Your task to perform on an android device: Open eBay Image 0: 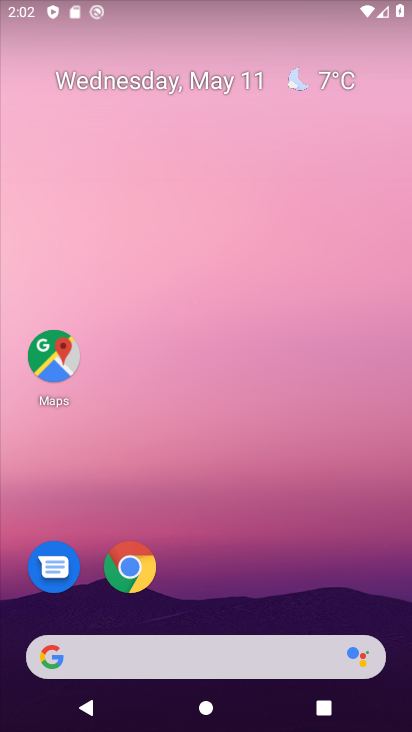
Step 0: click (145, 600)
Your task to perform on an android device: Open eBay Image 1: 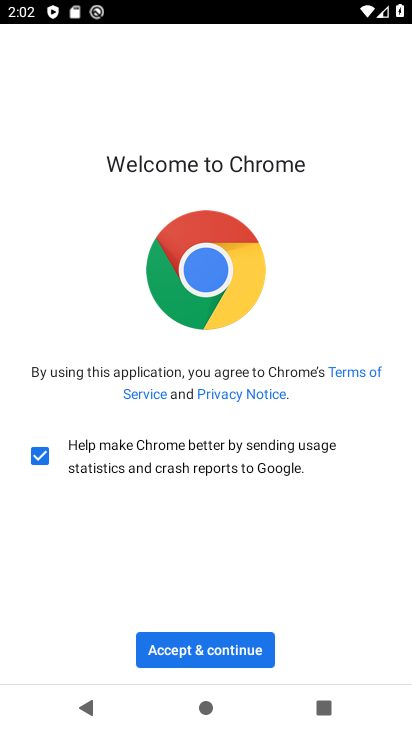
Step 1: click (171, 641)
Your task to perform on an android device: Open eBay Image 2: 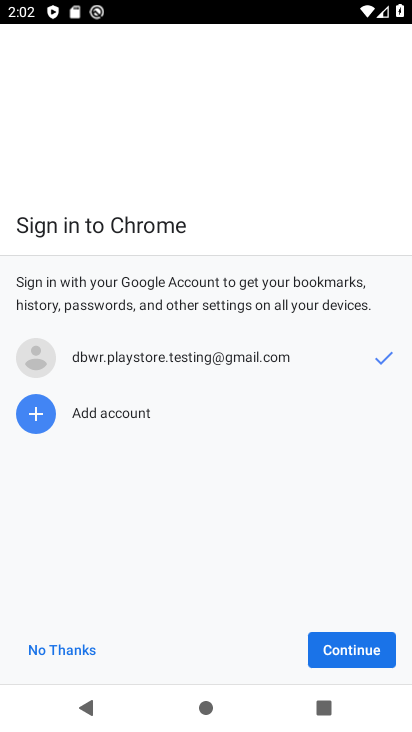
Step 2: click (372, 658)
Your task to perform on an android device: Open eBay Image 3: 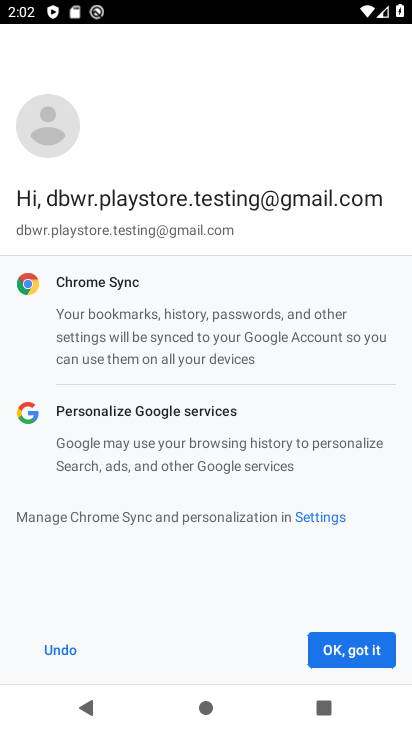
Step 3: click (354, 651)
Your task to perform on an android device: Open eBay Image 4: 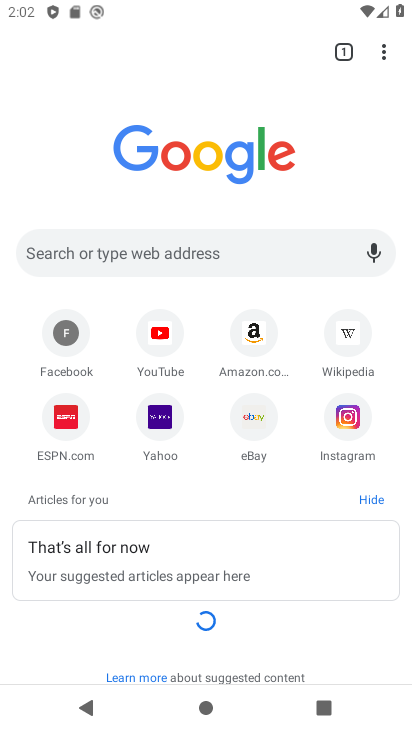
Step 4: click (259, 434)
Your task to perform on an android device: Open eBay Image 5: 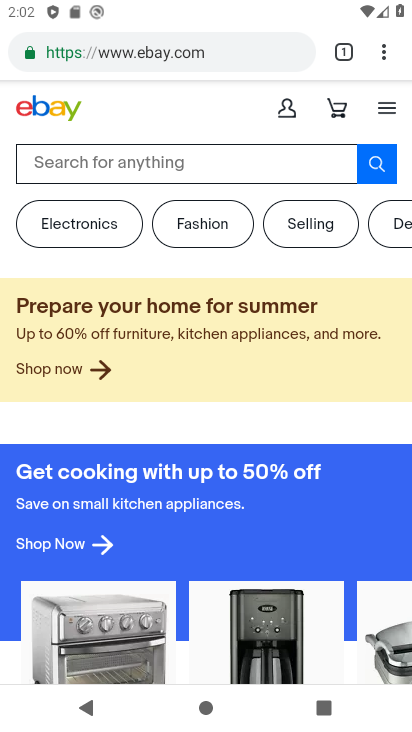
Step 5: task complete